Your task to perform on an android device: toggle airplane mode Image 0: 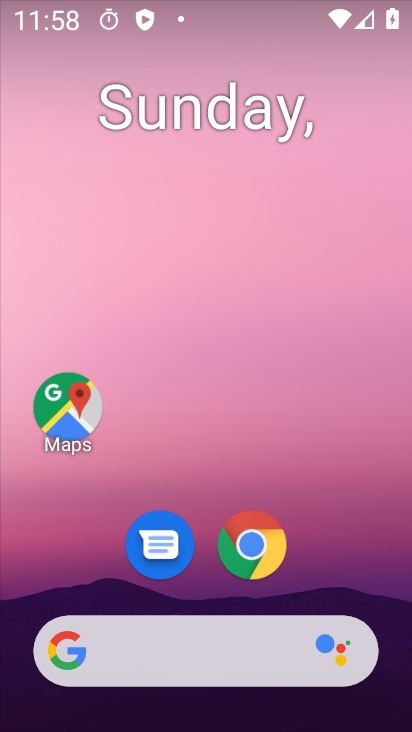
Step 0: drag from (217, 577) to (258, 209)
Your task to perform on an android device: toggle airplane mode Image 1: 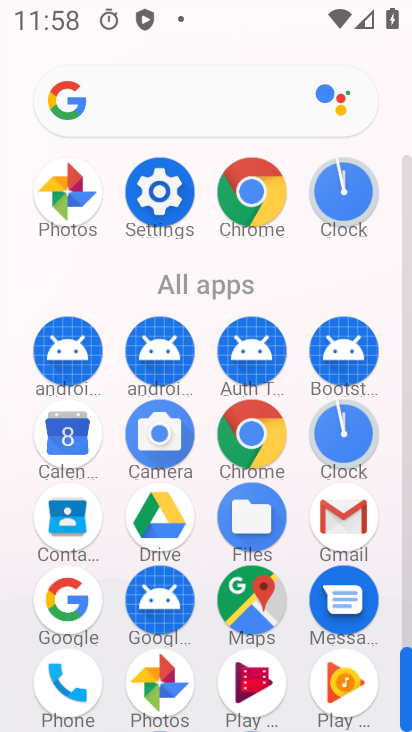
Step 1: click (156, 198)
Your task to perform on an android device: toggle airplane mode Image 2: 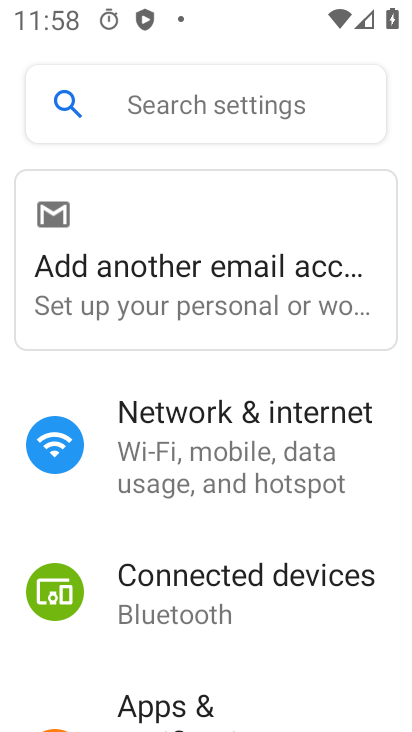
Step 2: click (213, 439)
Your task to perform on an android device: toggle airplane mode Image 3: 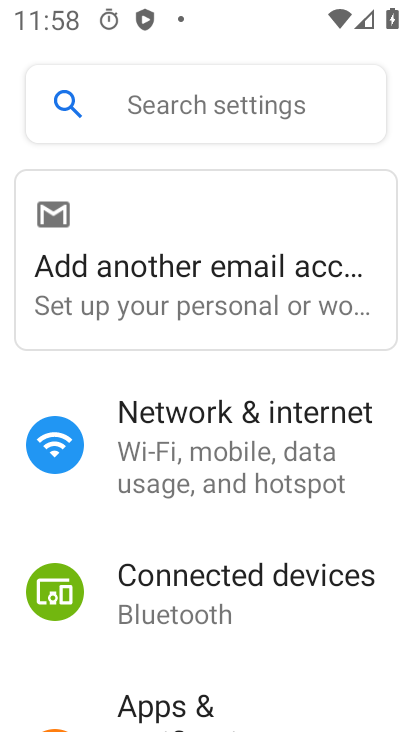
Step 3: click (213, 439)
Your task to perform on an android device: toggle airplane mode Image 4: 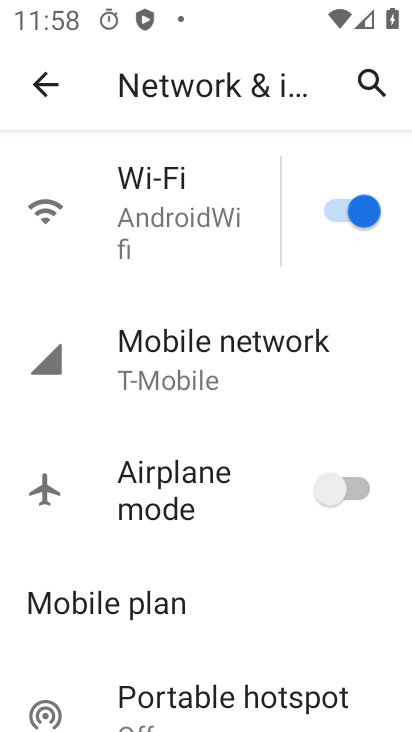
Step 4: click (215, 495)
Your task to perform on an android device: toggle airplane mode Image 5: 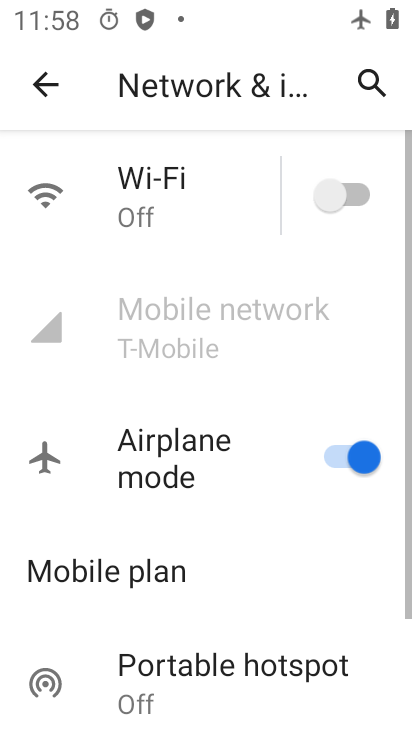
Step 5: task complete